Your task to perform on an android device: choose inbox layout in the gmail app Image 0: 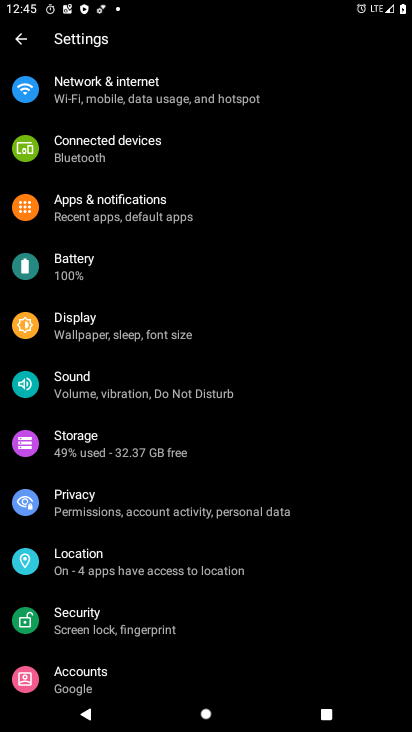
Step 0: press home button
Your task to perform on an android device: choose inbox layout in the gmail app Image 1: 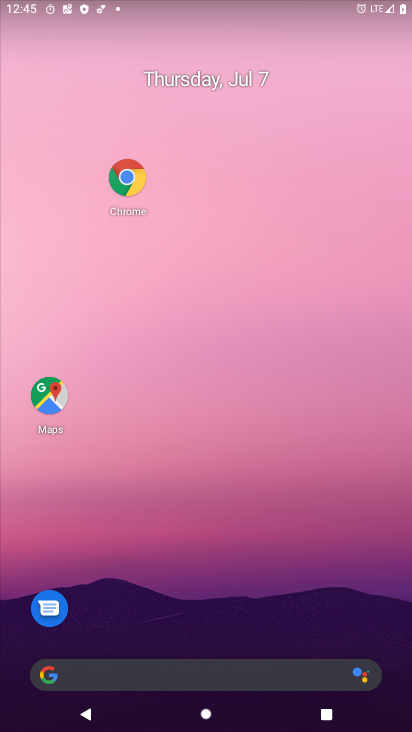
Step 1: drag from (266, 661) to (261, 142)
Your task to perform on an android device: choose inbox layout in the gmail app Image 2: 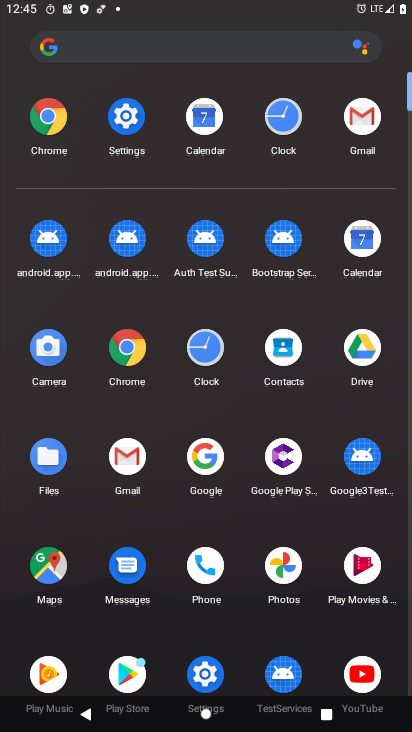
Step 2: click (117, 461)
Your task to perform on an android device: choose inbox layout in the gmail app Image 3: 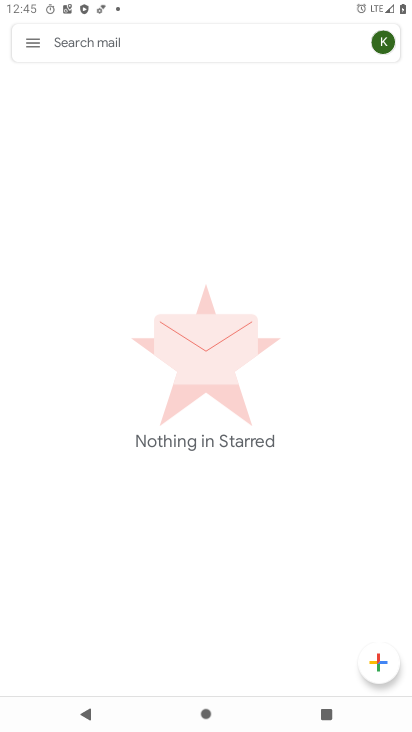
Step 3: click (39, 43)
Your task to perform on an android device: choose inbox layout in the gmail app Image 4: 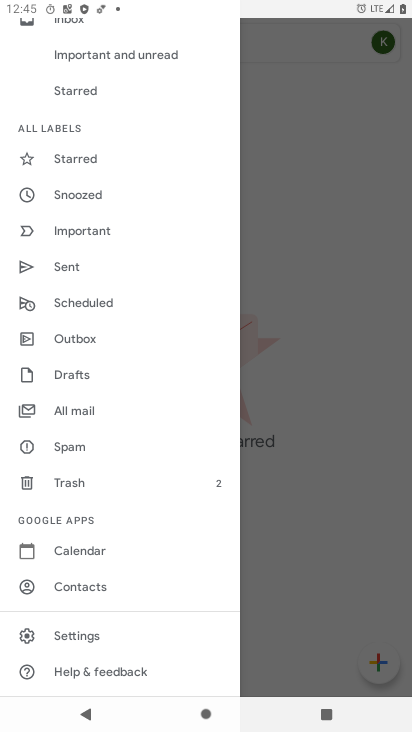
Step 4: click (63, 646)
Your task to perform on an android device: choose inbox layout in the gmail app Image 5: 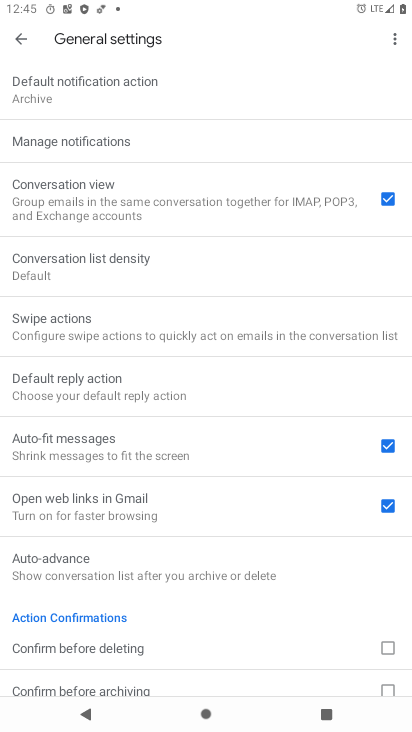
Step 5: click (26, 35)
Your task to perform on an android device: choose inbox layout in the gmail app Image 6: 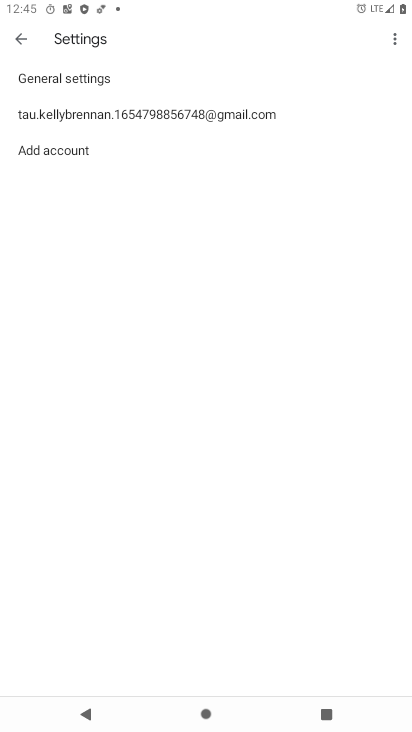
Step 6: click (90, 111)
Your task to perform on an android device: choose inbox layout in the gmail app Image 7: 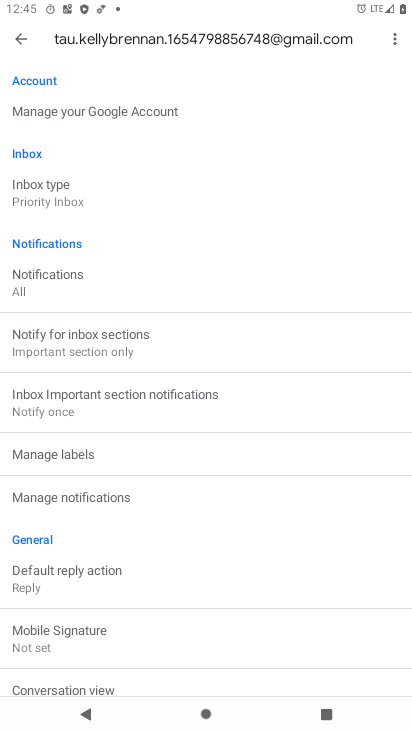
Step 7: click (43, 203)
Your task to perform on an android device: choose inbox layout in the gmail app Image 8: 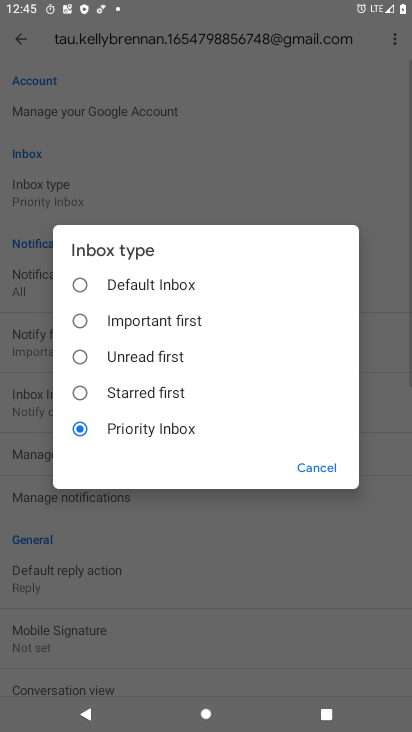
Step 8: click (131, 312)
Your task to perform on an android device: choose inbox layout in the gmail app Image 9: 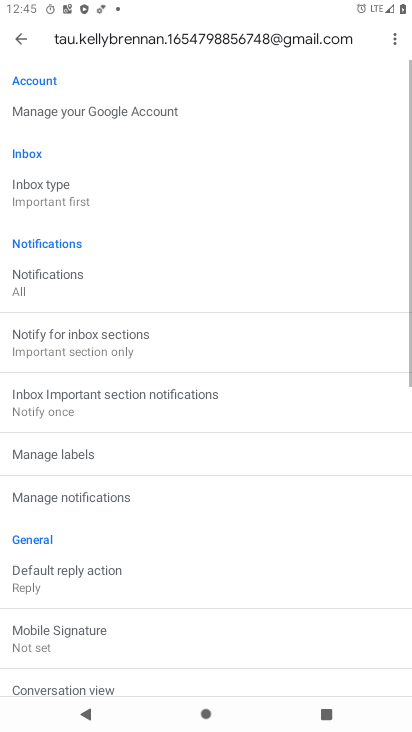
Step 9: task complete